Your task to perform on an android device: open chrome privacy settings Image 0: 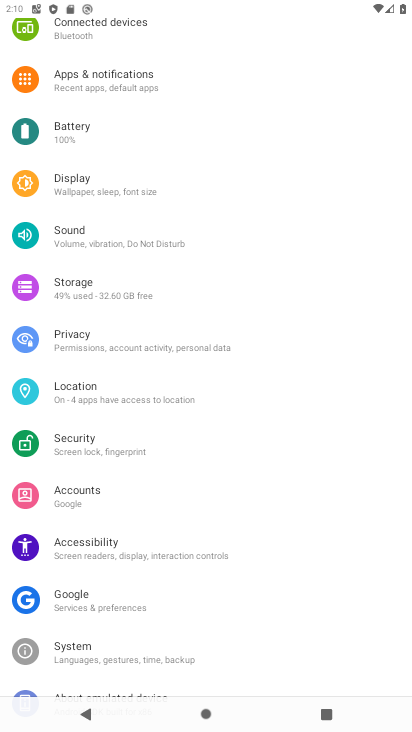
Step 0: drag from (328, 585) to (401, 173)
Your task to perform on an android device: open chrome privacy settings Image 1: 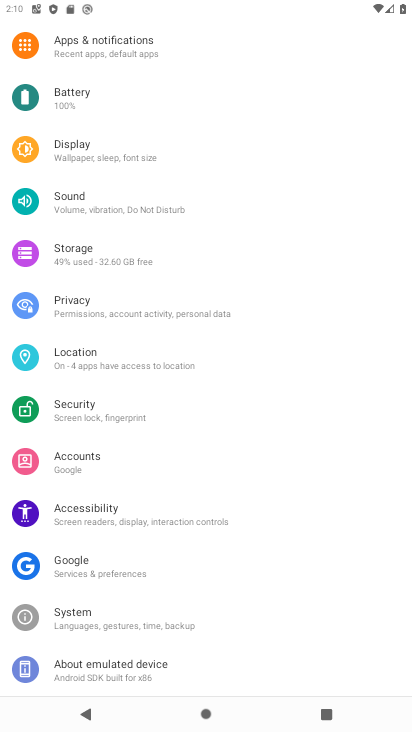
Step 1: press home button
Your task to perform on an android device: open chrome privacy settings Image 2: 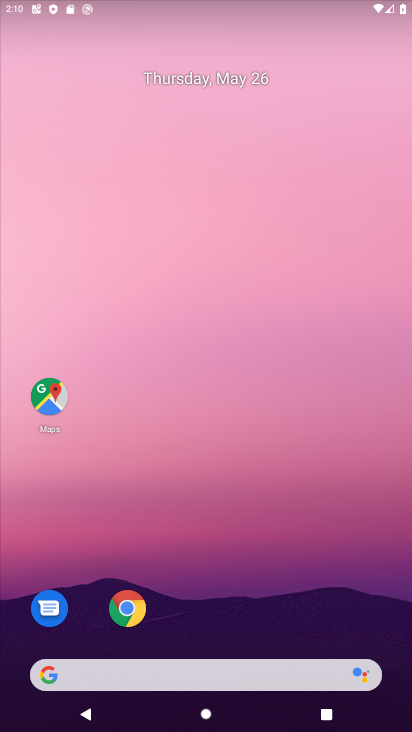
Step 2: drag from (309, 394) to (338, 6)
Your task to perform on an android device: open chrome privacy settings Image 3: 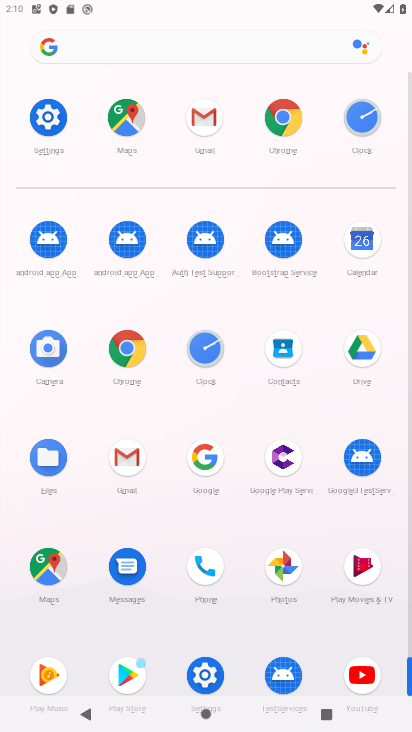
Step 3: click (284, 124)
Your task to perform on an android device: open chrome privacy settings Image 4: 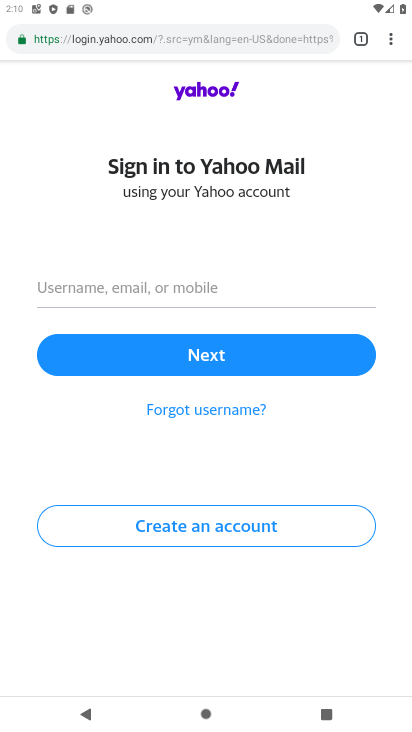
Step 4: drag from (393, 41) to (260, 436)
Your task to perform on an android device: open chrome privacy settings Image 5: 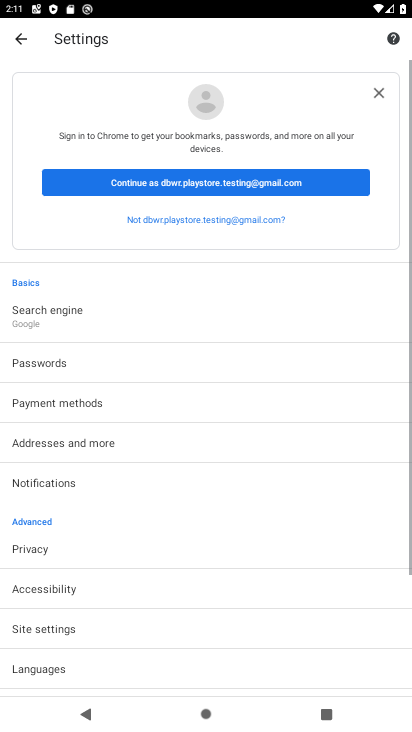
Step 5: drag from (126, 597) to (199, 286)
Your task to perform on an android device: open chrome privacy settings Image 6: 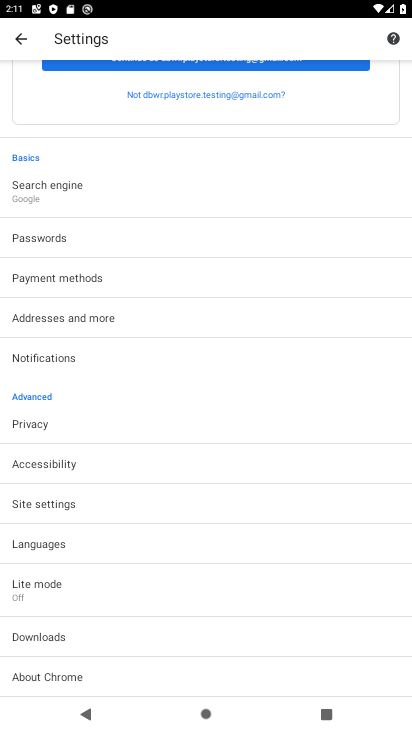
Step 6: click (68, 415)
Your task to perform on an android device: open chrome privacy settings Image 7: 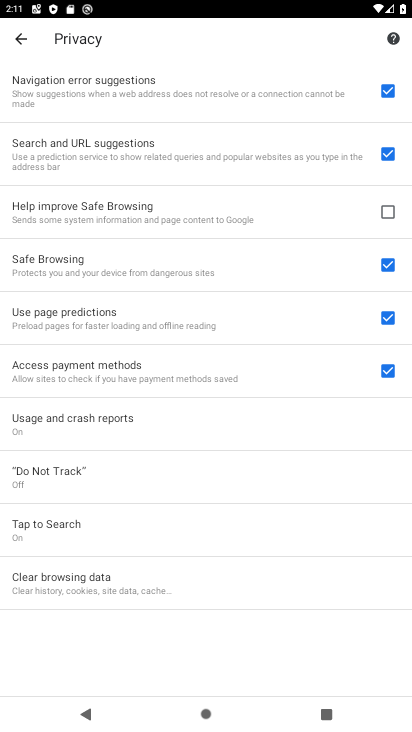
Step 7: task complete